Your task to perform on an android device: Go to internet settings Image 0: 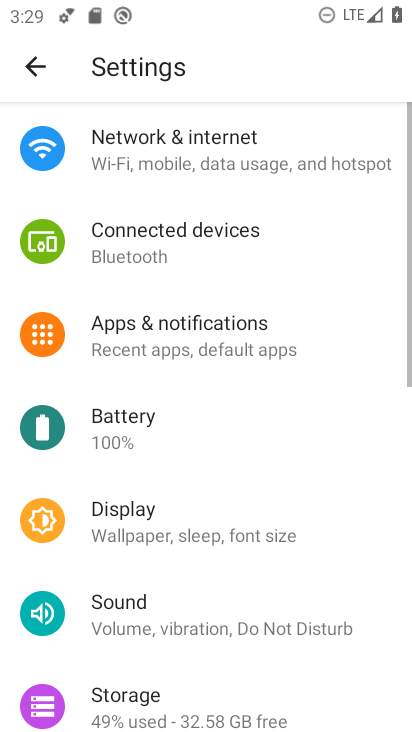
Step 0: click (271, 147)
Your task to perform on an android device: Go to internet settings Image 1: 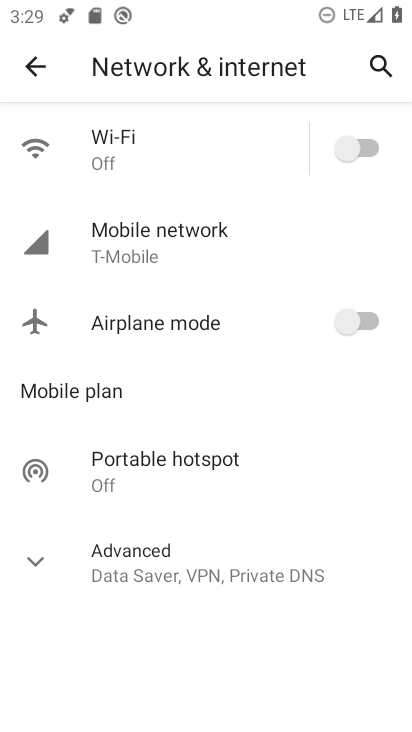
Step 1: task complete